Your task to perform on an android device: Go to display settings Image 0: 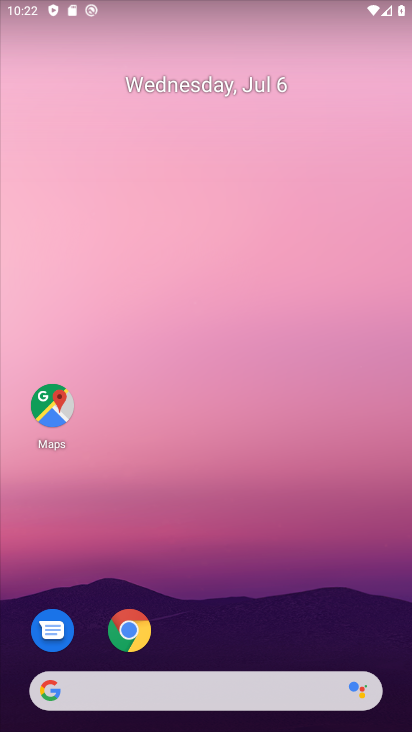
Step 0: drag from (158, 680) to (196, 241)
Your task to perform on an android device: Go to display settings Image 1: 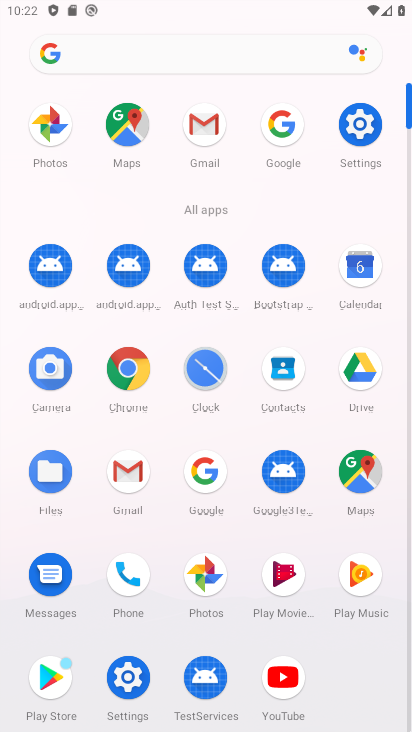
Step 1: click (347, 129)
Your task to perform on an android device: Go to display settings Image 2: 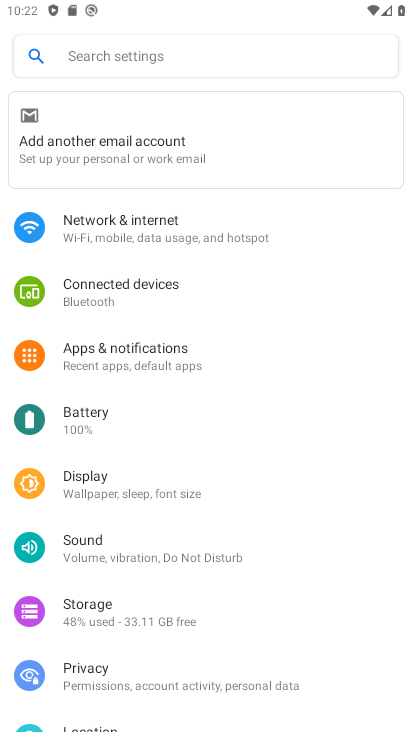
Step 2: click (72, 483)
Your task to perform on an android device: Go to display settings Image 3: 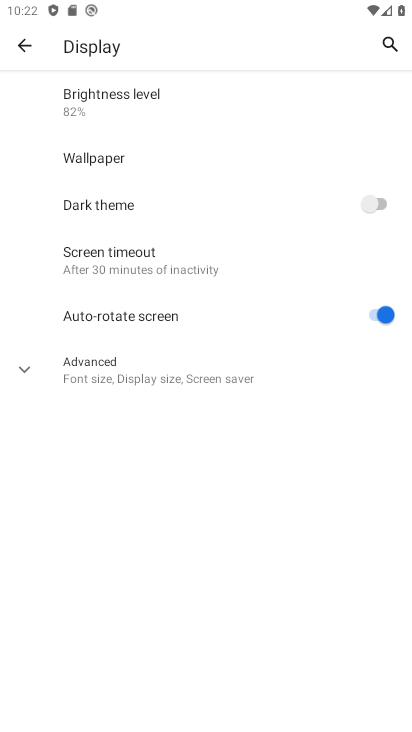
Step 3: click (158, 365)
Your task to perform on an android device: Go to display settings Image 4: 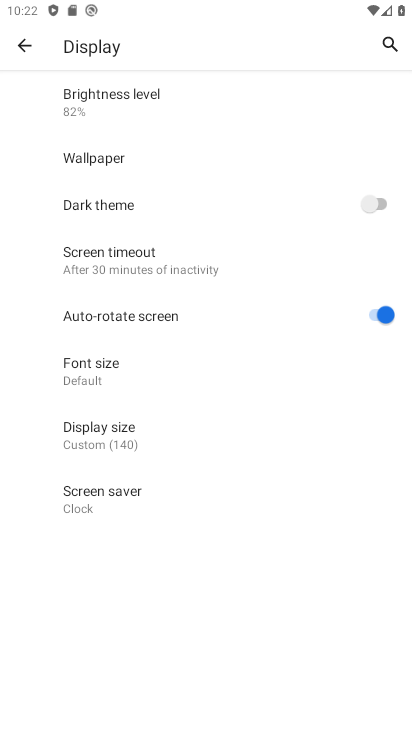
Step 4: task complete